Your task to perform on an android device: toggle show notifications on the lock screen Image 0: 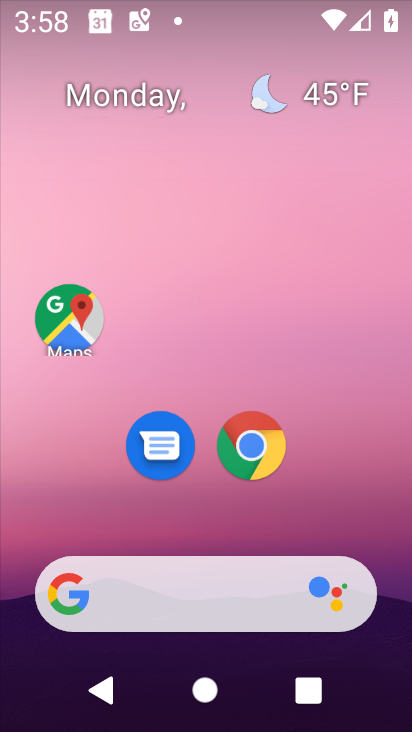
Step 0: drag from (291, 432) to (314, 18)
Your task to perform on an android device: toggle show notifications on the lock screen Image 1: 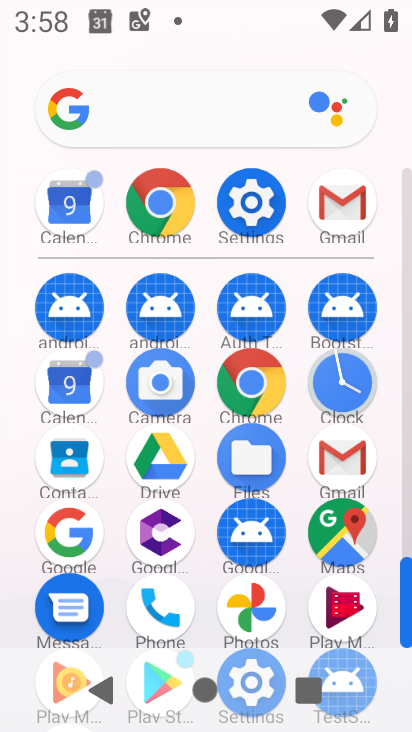
Step 1: click (247, 196)
Your task to perform on an android device: toggle show notifications on the lock screen Image 2: 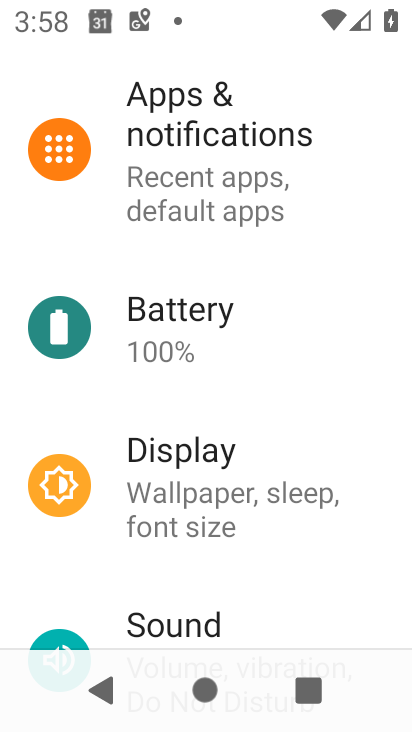
Step 2: click (227, 202)
Your task to perform on an android device: toggle show notifications on the lock screen Image 3: 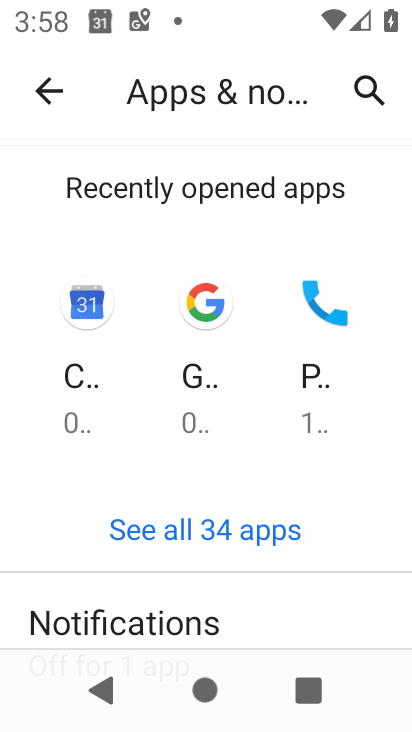
Step 3: drag from (241, 594) to (239, 158)
Your task to perform on an android device: toggle show notifications on the lock screen Image 4: 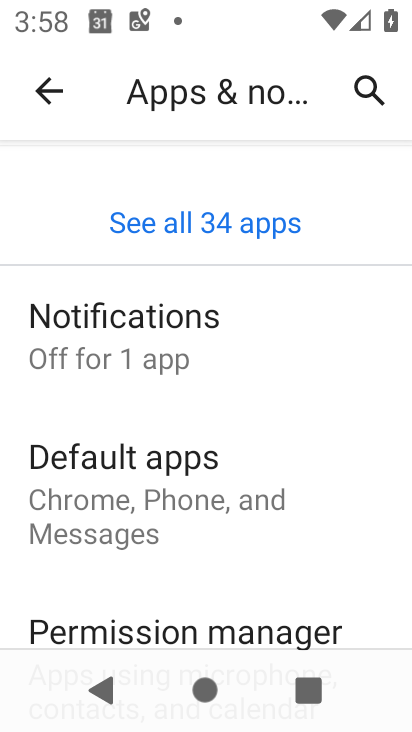
Step 4: click (227, 327)
Your task to perform on an android device: toggle show notifications on the lock screen Image 5: 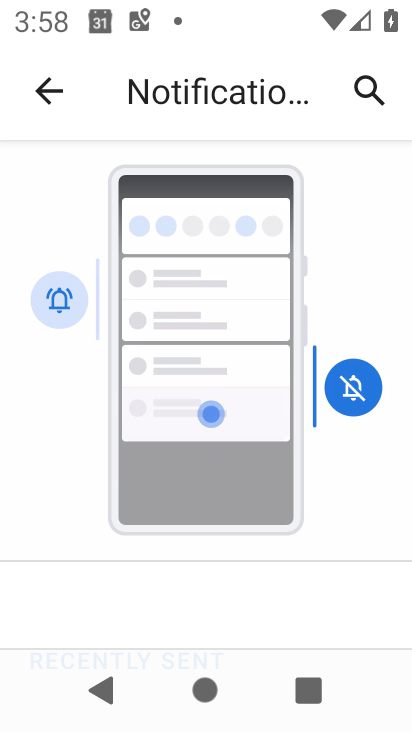
Step 5: drag from (231, 606) to (212, 165)
Your task to perform on an android device: toggle show notifications on the lock screen Image 6: 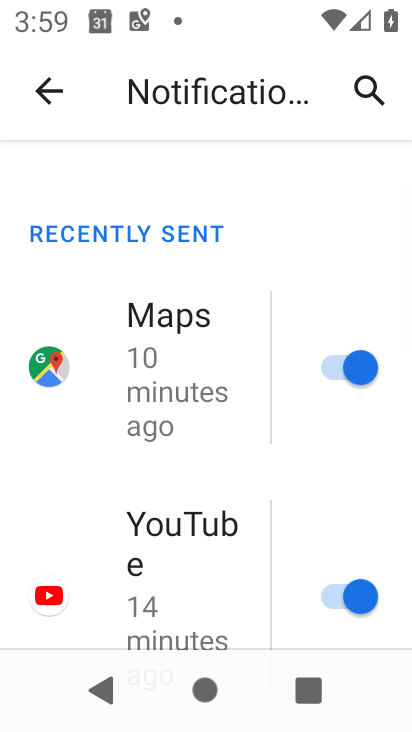
Step 6: drag from (272, 531) to (253, 237)
Your task to perform on an android device: toggle show notifications on the lock screen Image 7: 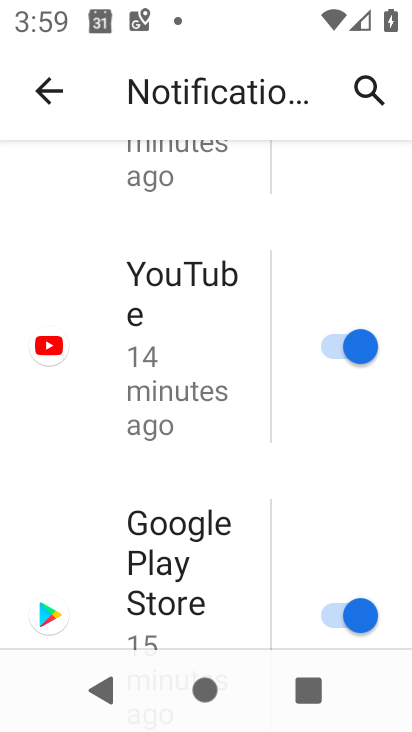
Step 7: drag from (246, 580) to (234, 186)
Your task to perform on an android device: toggle show notifications on the lock screen Image 8: 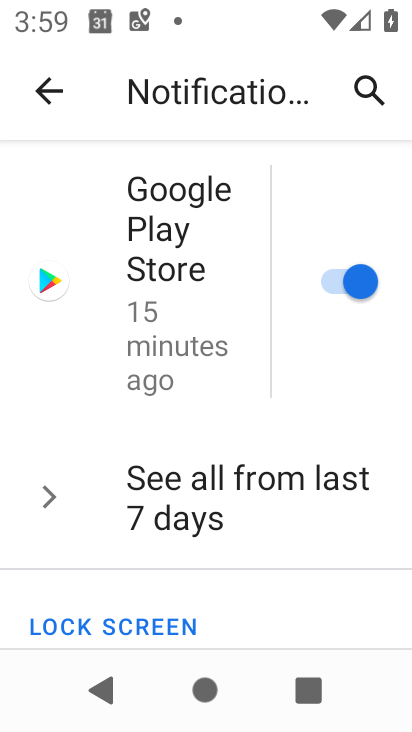
Step 8: drag from (196, 590) to (163, 266)
Your task to perform on an android device: toggle show notifications on the lock screen Image 9: 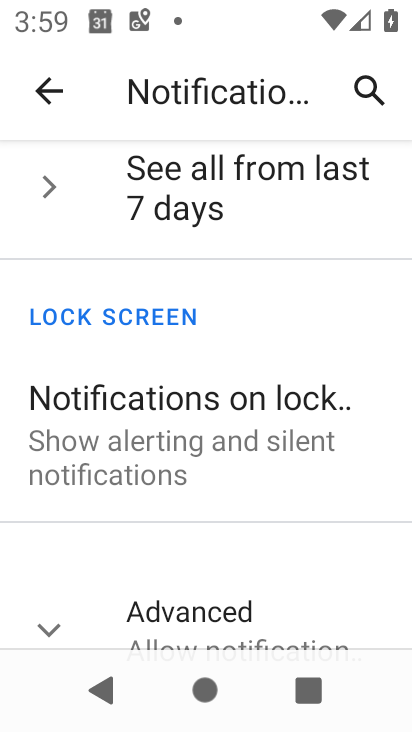
Step 9: click (220, 442)
Your task to perform on an android device: toggle show notifications on the lock screen Image 10: 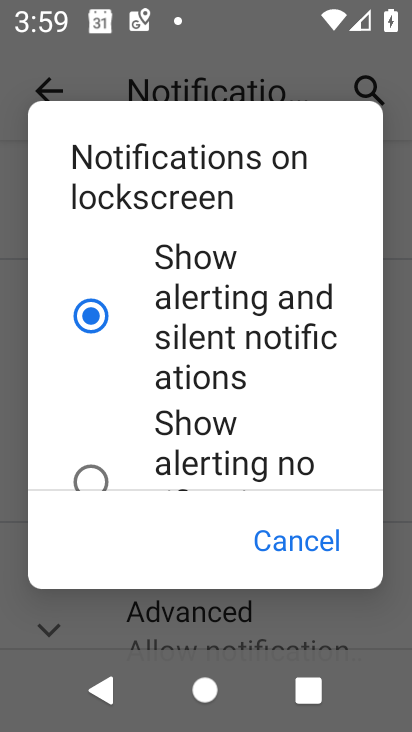
Step 10: click (224, 436)
Your task to perform on an android device: toggle show notifications on the lock screen Image 11: 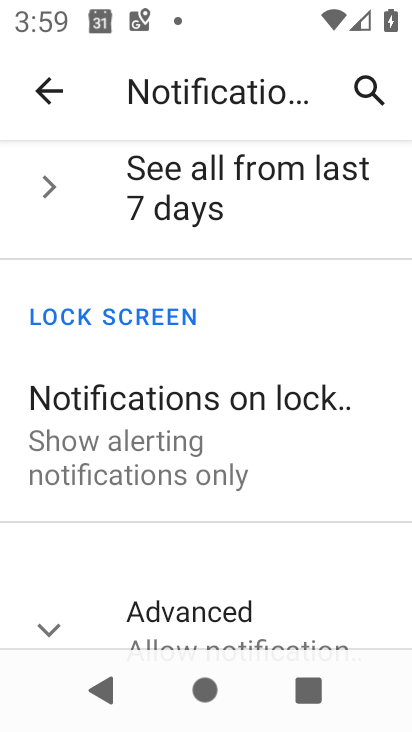
Step 11: task complete